Your task to perform on an android device: Open wifi settings Image 0: 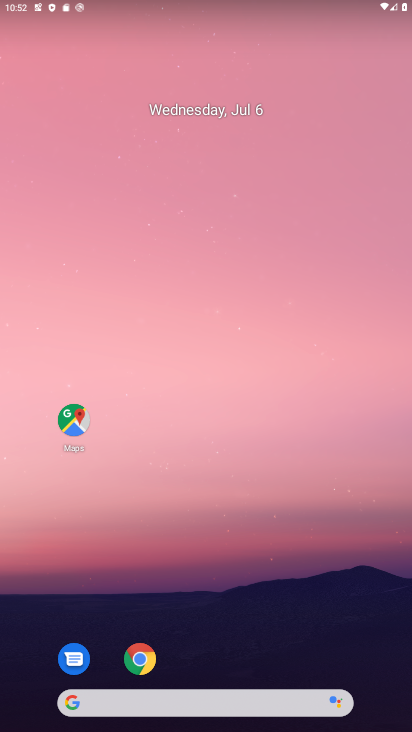
Step 0: click (162, 266)
Your task to perform on an android device: Open wifi settings Image 1: 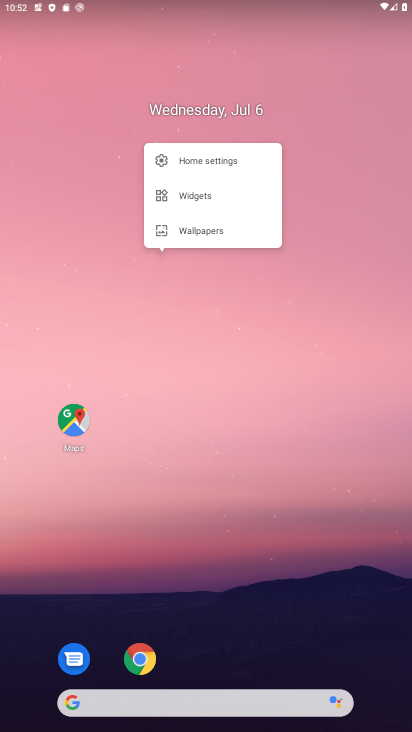
Step 1: click (234, 360)
Your task to perform on an android device: Open wifi settings Image 2: 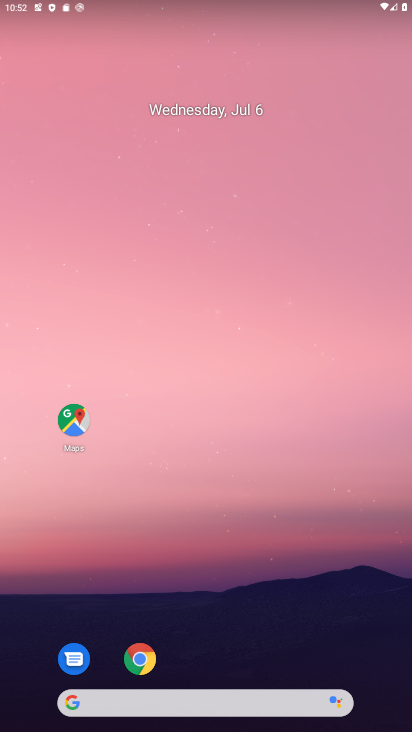
Step 2: drag from (221, 574) to (160, 162)
Your task to perform on an android device: Open wifi settings Image 3: 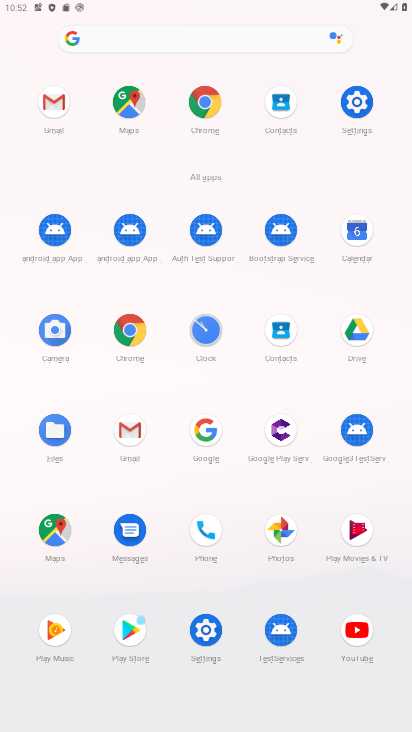
Step 3: click (357, 105)
Your task to perform on an android device: Open wifi settings Image 4: 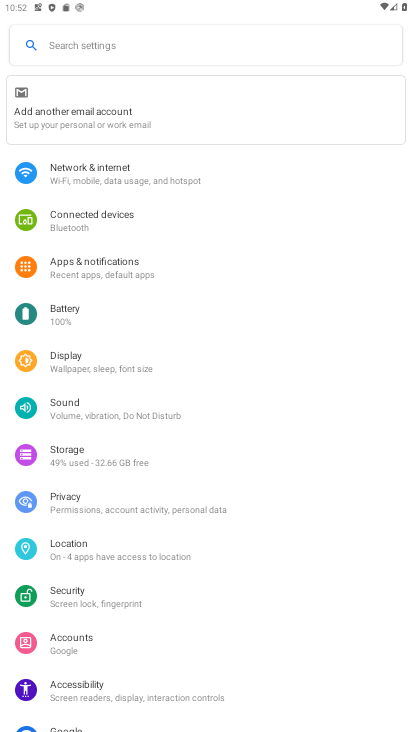
Step 4: click (95, 173)
Your task to perform on an android device: Open wifi settings Image 5: 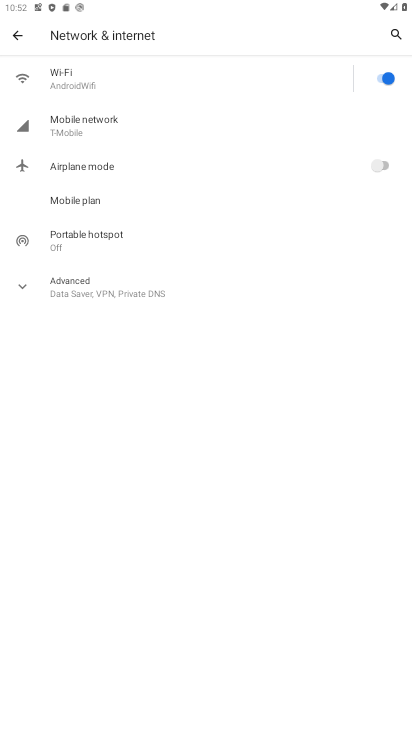
Step 5: click (113, 67)
Your task to perform on an android device: Open wifi settings Image 6: 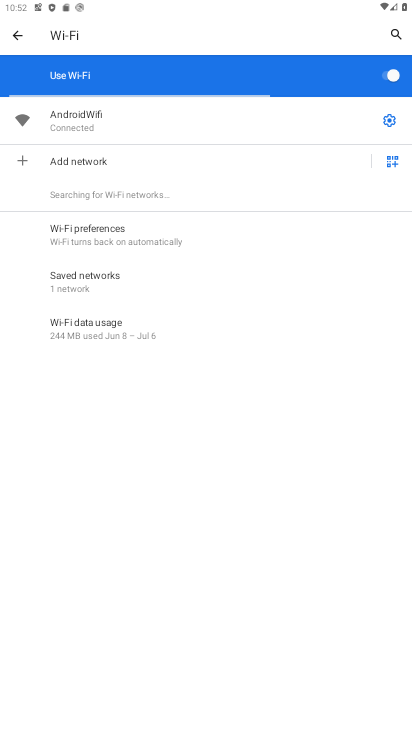
Step 6: task complete